Your task to perform on an android device: Go to battery settings Image 0: 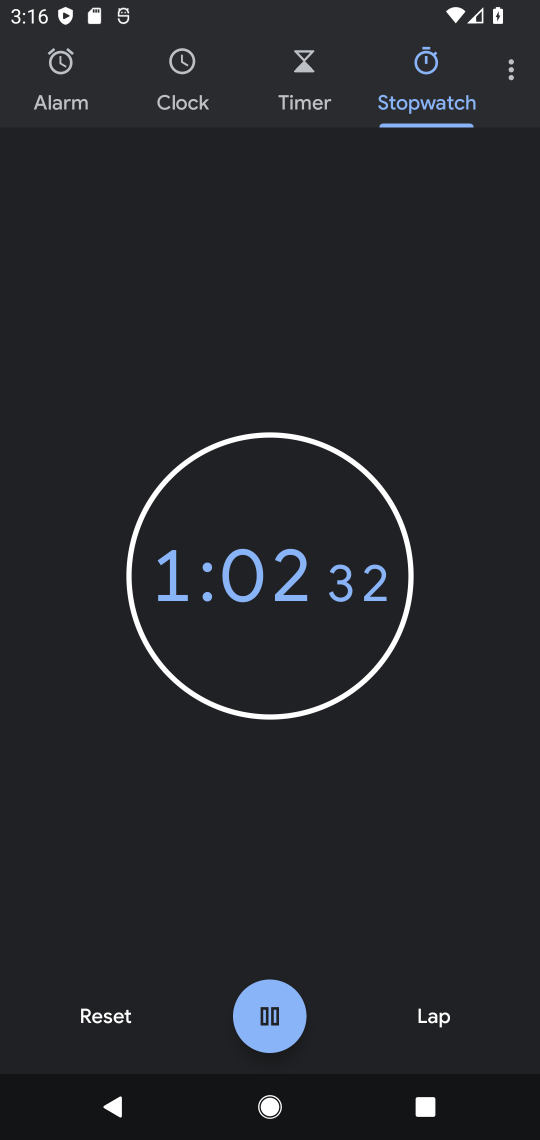
Step 0: press home button
Your task to perform on an android device: Go to battery settings Image 1: 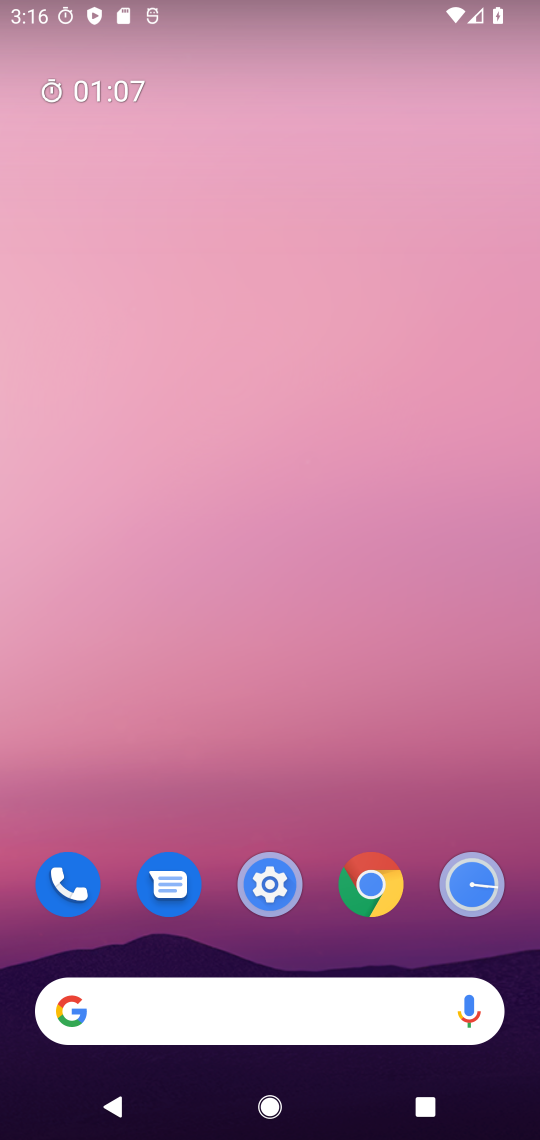
Step 1: click (261, 896)
Your task to perform on an android device: Go to battery settings Image 2: 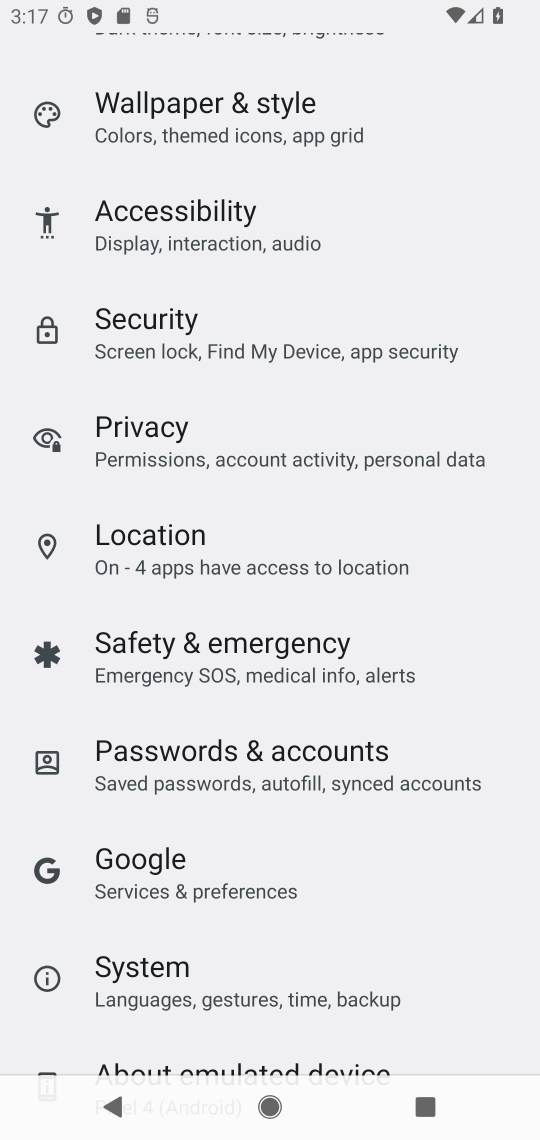
Step 2: drag from (211, 212) to (203, 682)
Your task to perform on an android device: Go to battery settings Image 3: 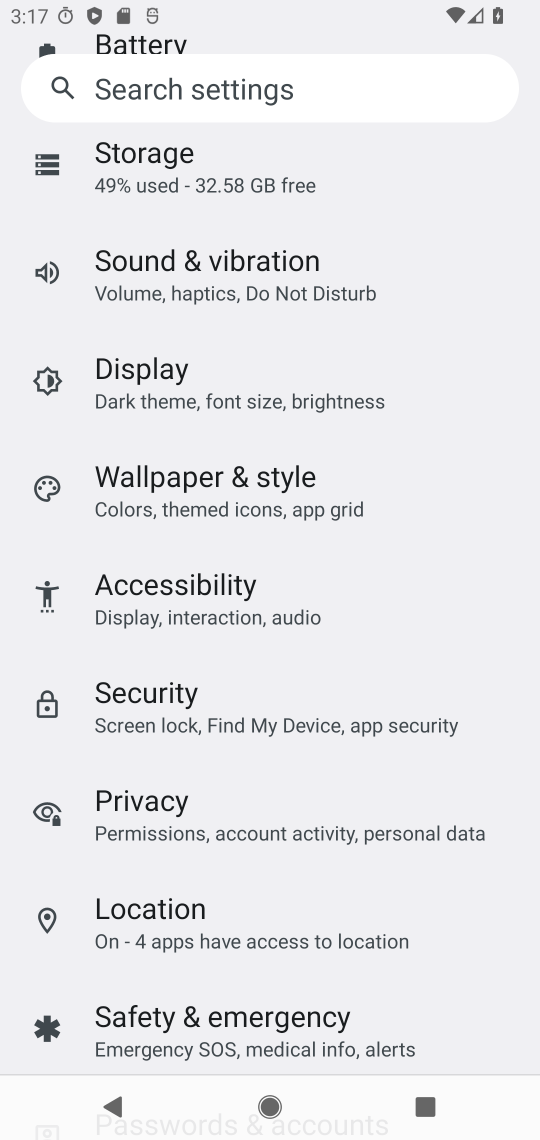
Step 3: click (136, 43)
Your task to perform on an android device: Go to battery settings Image 4: 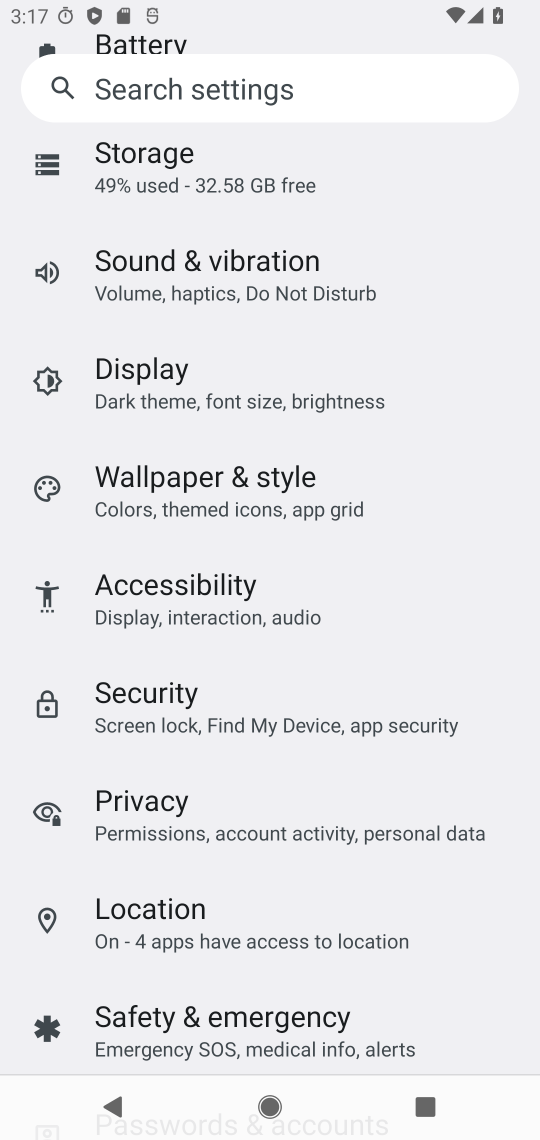
Step 4: drag from (307, 350) to (284, 827)
Your task to perform on an android device: Go to battery settings Image 5: 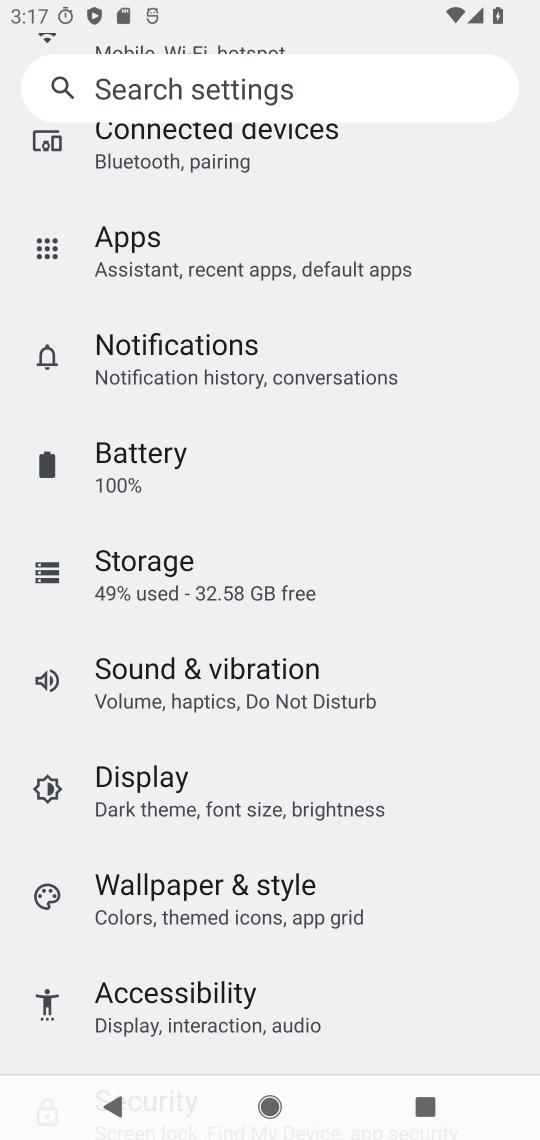
Step 5: click (153, 484)
Your task to perform on an android device: Go to battery settings Image 6: 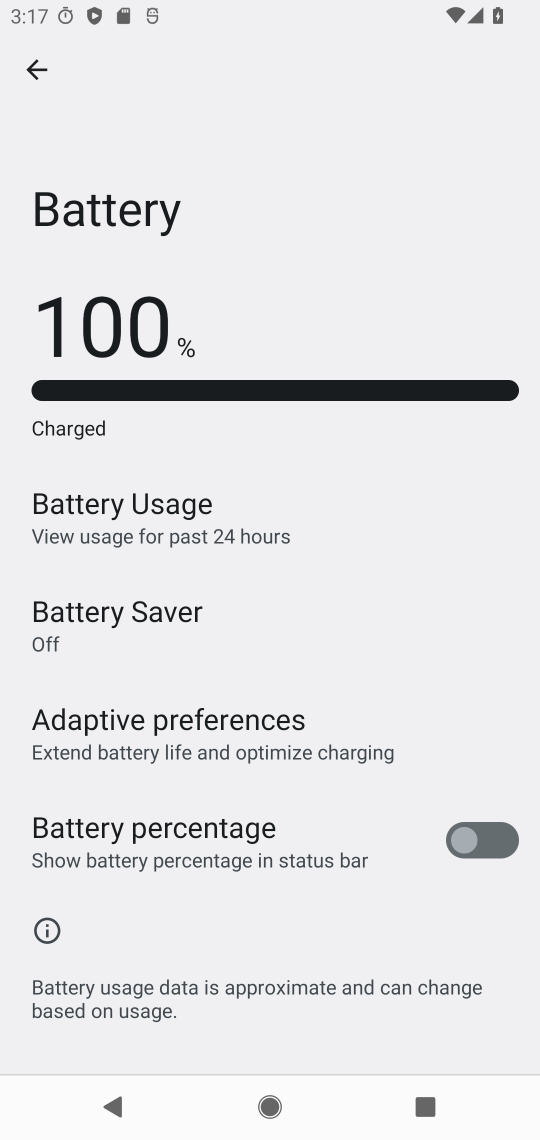
Step 6: task complete